Your task to perform on an android device: Open the calendar app, open the side menu, and click the "Day" option Image 0: 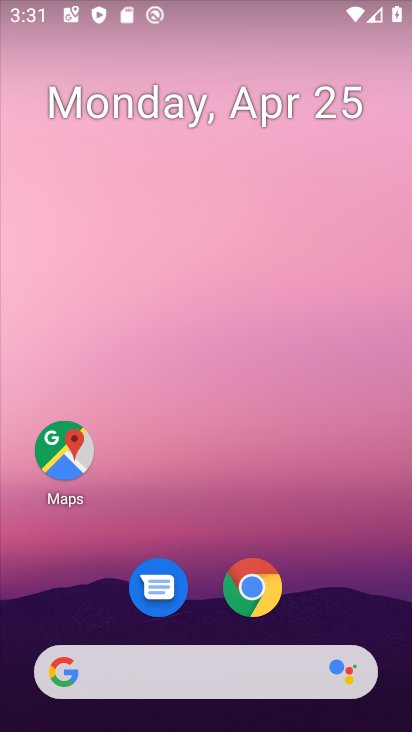
Step 0: drag from (215, 591) to (231, 182)
Your task to perform on an android device: Open the calendar app, open the side menu, and click the "Day" option Image 1: 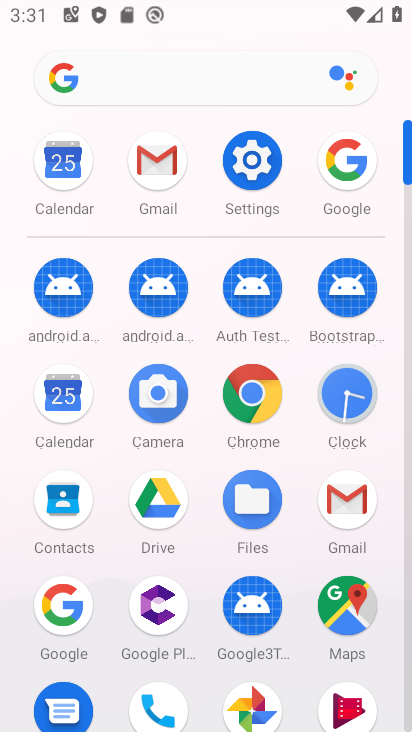
Step 1: click (63, 392)
Your task to perform on an android device: Open the calendar app, open the side menu, and click the "Day" option Image 2: 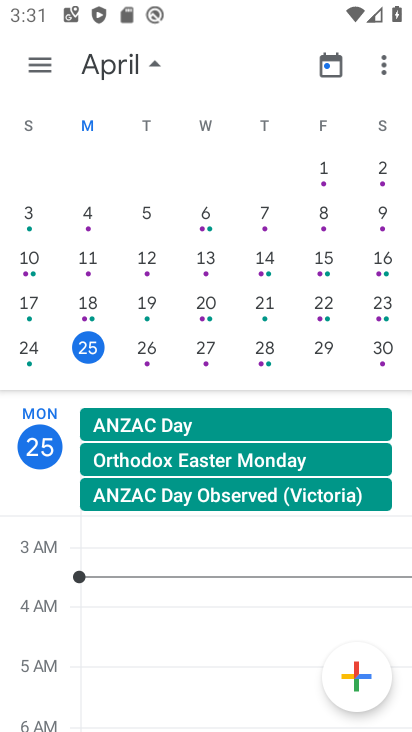
Step 2: click (41, 58)
Your task to perform on an android device: Open the calendar app, open the side menu, and click the "Day" option Image 3: 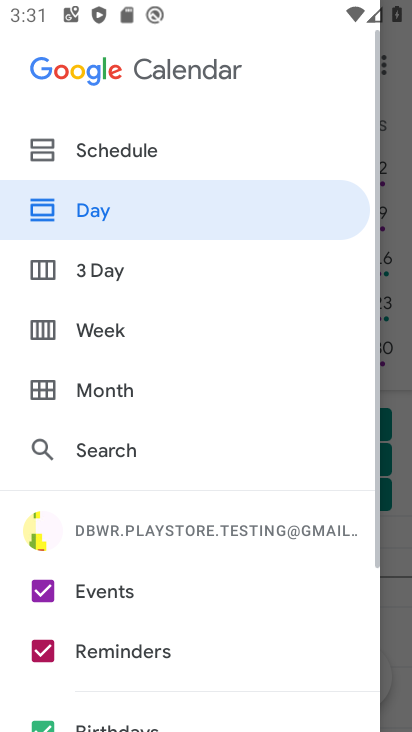
Step 3: click (115, 197)
Your task to perform on an android device: Open the calendar app, open the side menu, and click the "Day" option Image 4: 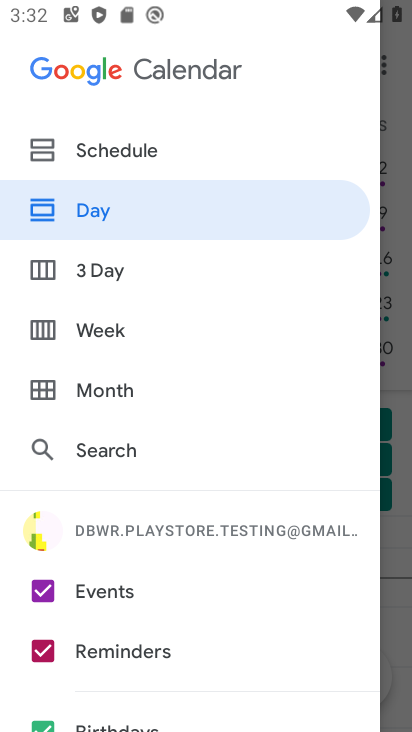
Step 4: task complete